Your task to perform on an android device: turn off picture-in-picture Image 0: 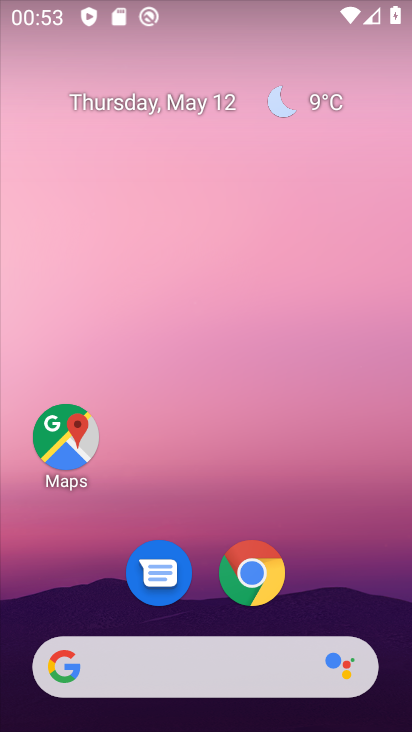
Step 0: click (237, 581)
Your task to perform on an android device: turn off picture-in-picture Image 1: 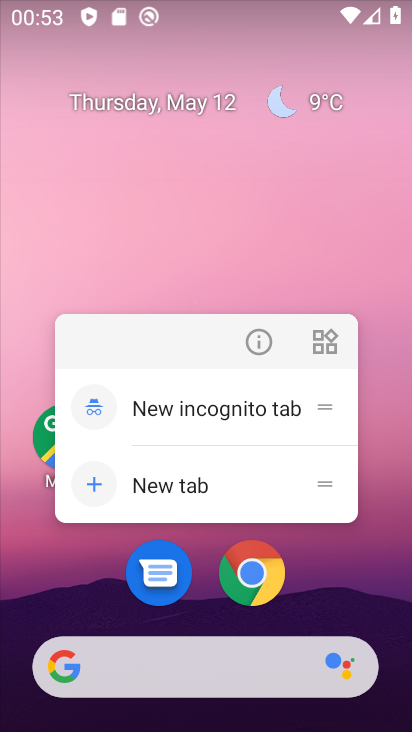
Step 1: click (254, 346)
Your task to perform on an android device: turn off picture-in-picture Image 2: 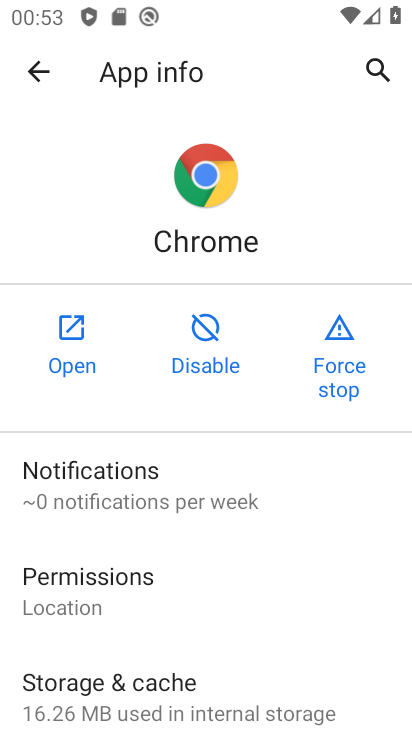
Step 2: drag from (159, 537) to (230, 122)
Your task to perform on an android device: turn off picture-in-picture Image 3: 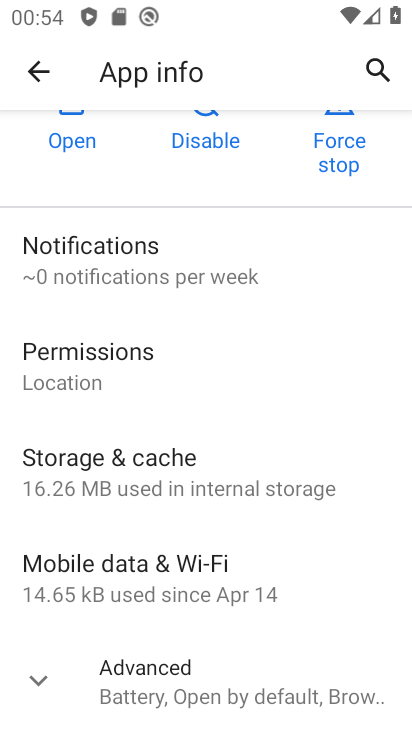
Step 3: drag from (167, 523) to (197, 288)
Your task to perform on an android device: turn off picture-in-picture Image 4: 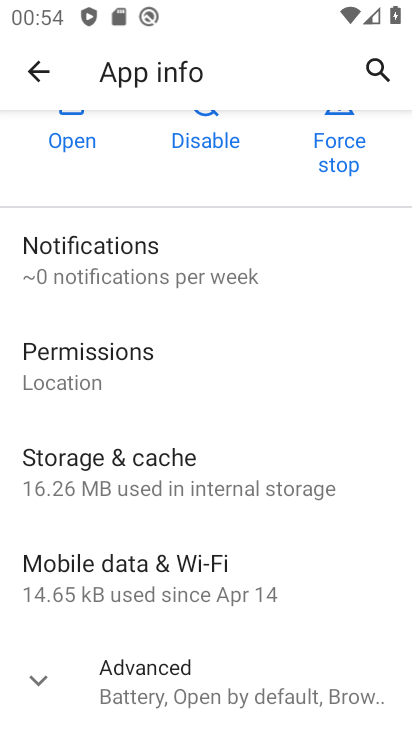
Step 4: click (145, 680)
Your task to perform on an android device: turn off picture-in-picture Image 5: 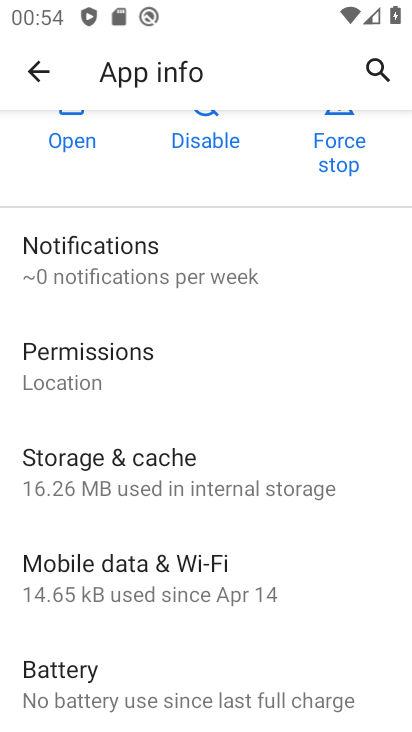
Step 5: drag from (166, 603) to (217, 202)
Your task to perform on an android device: turn off picture-in-picture Image 6: 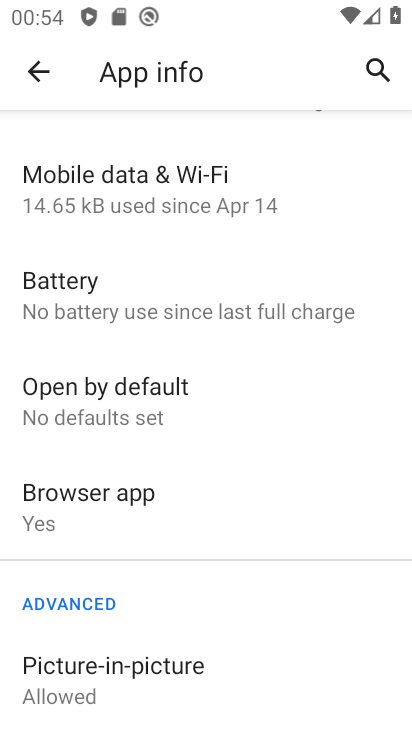
Step 6: drag from (92, 681) to (119, 506)
Your task to perform on an android device: turn off picture-in-picture Image 7: 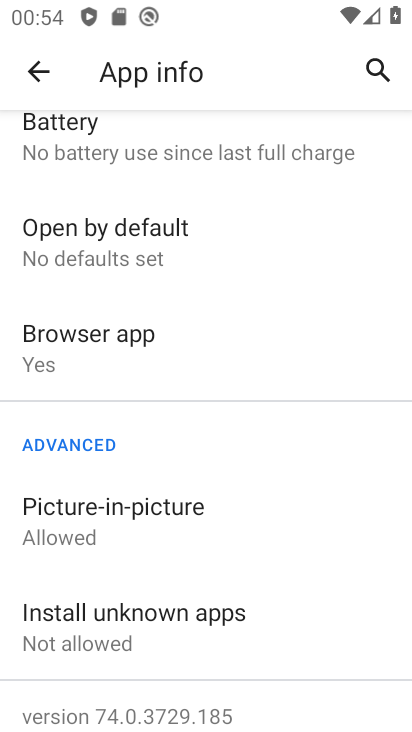
Step 7: click (106, 546)
Your task to perform on an android device: turn off picture-in-picture Image 8: 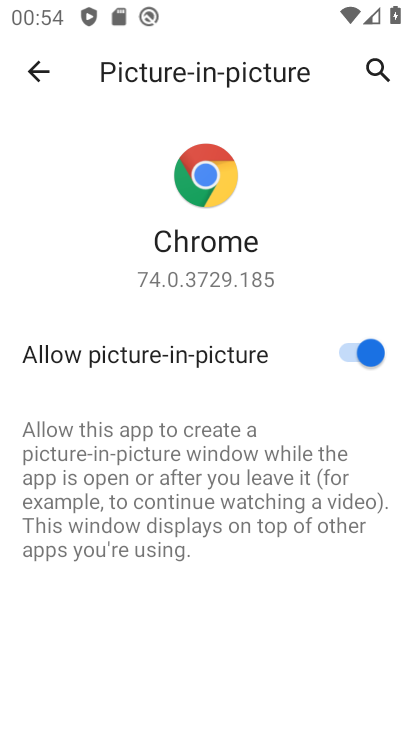
Step 8: click (315, 364)
Your task to perform on an android device: turn off picture-in-picture Image 9: 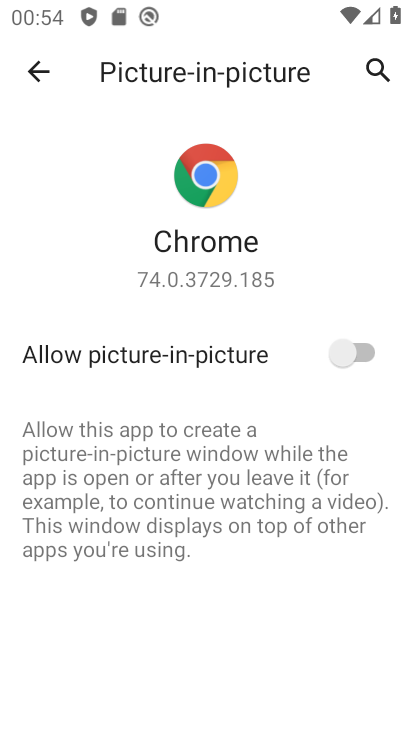
Step 9: task complete